Your task to perform on an android device: check google app version Image 0: 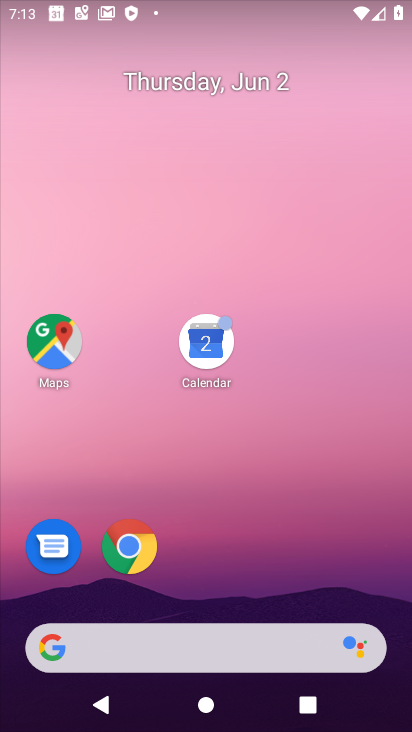
Step 0: press home button
Your task to perform on an android device: check google app version Image 1: 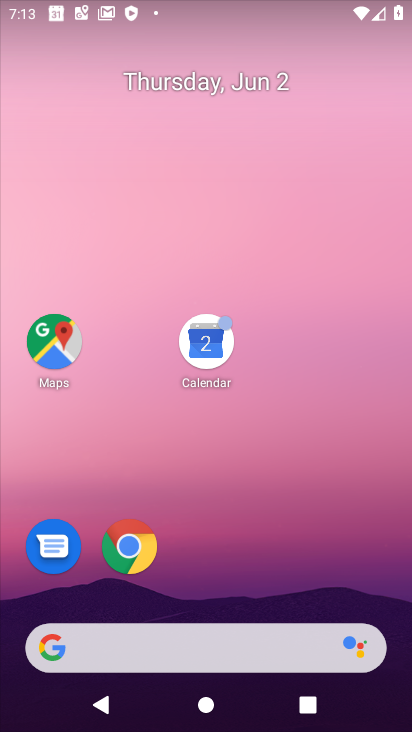
Step 1: click (141, 559)
Your task to perform on an android device: check google app version Image 2: 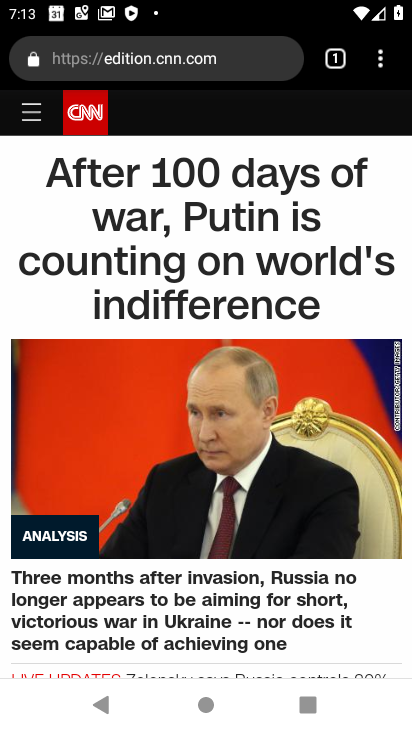
Step 2: click (379, 74)
Your task to perform on an android device: check google app version Image 3: 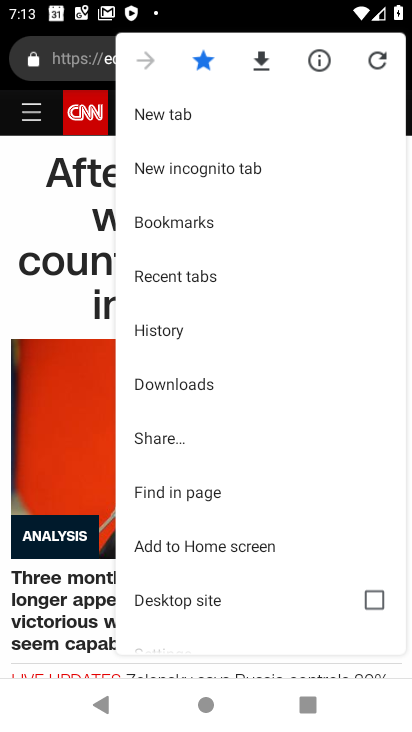
Step 3: drag from (244, 511) to (257, 388)
Your task to perform on an android device: check google app version Image 4: 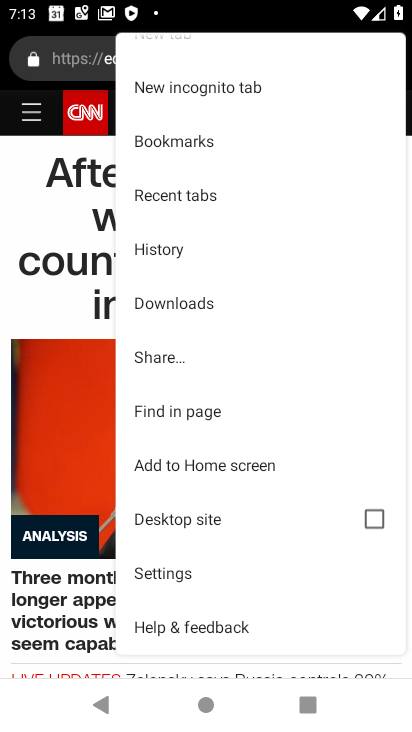
Step 4: click (158, 578)
Your task to perform on an android device: check google app version Image 5: 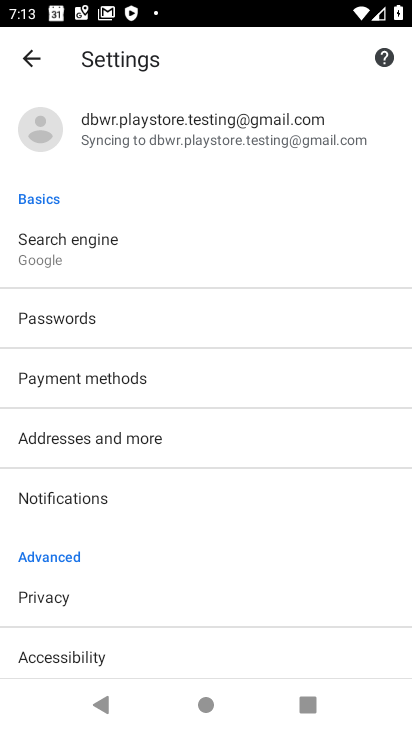
Step 5: drag from (163, 392) to (266, 94)
Your task to perform on an android device: check google app version Image 6: 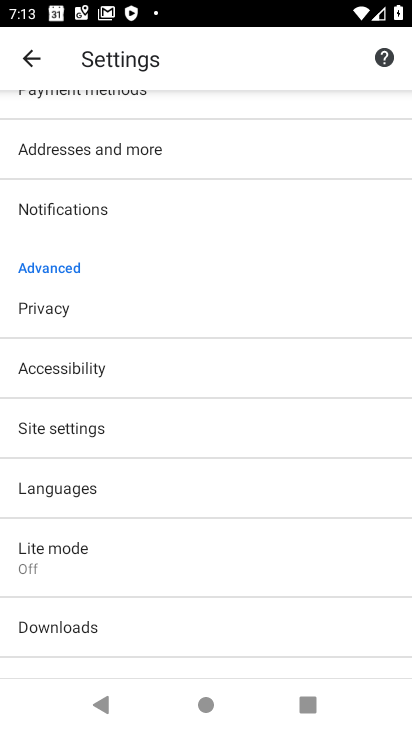
Step 6: drag from (119, 512) to (134, 477)
Your task to perform on an android device: check google app version Image 7: 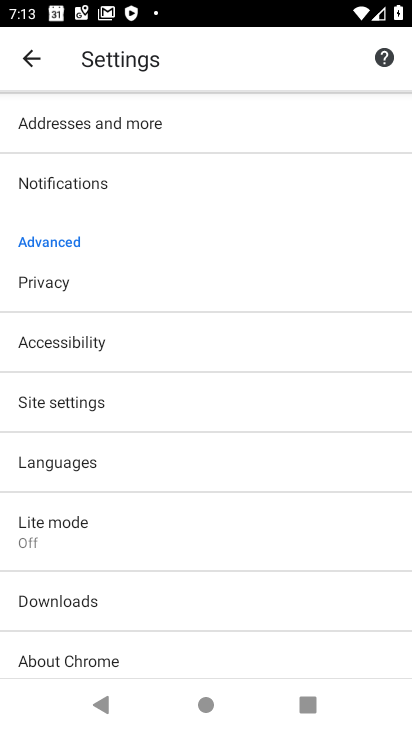
Step 7: click (81, 654)
Your task to perform on an android device: check google app version Image 8: 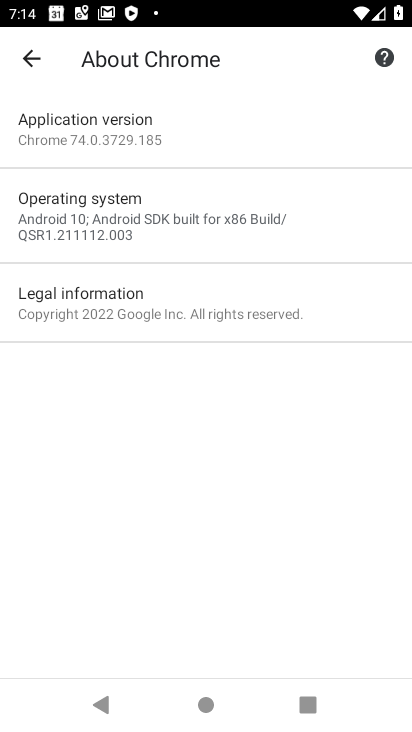
Step 8: click (142, 134)
Your task to perform on an android device: check google app version Image 9: 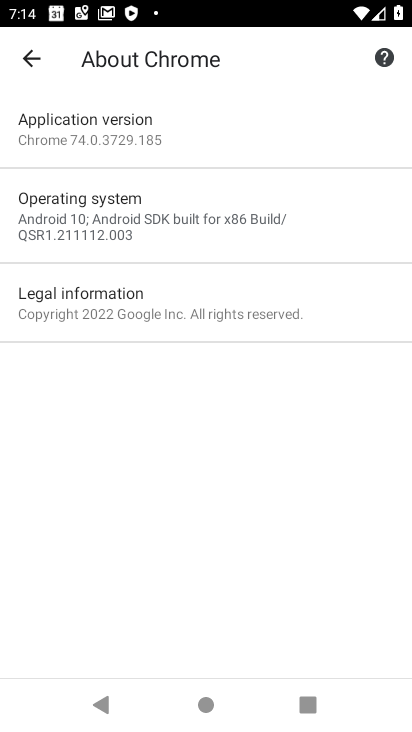
Step 9: task complete